Your task to perform on an android device: toggle location history Image 0: 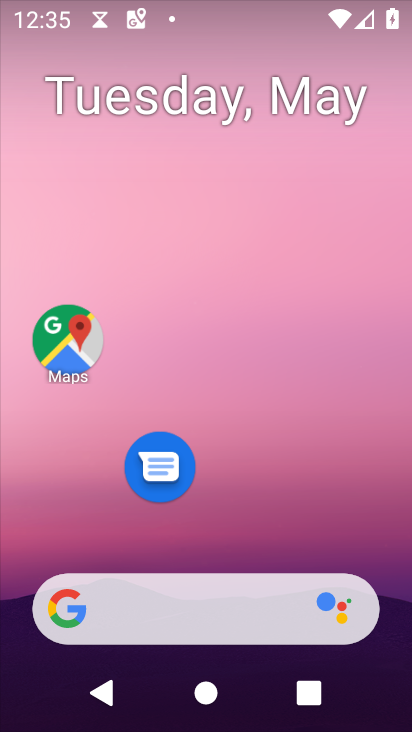
Step 0: drag from (261, 532) to (249, 72)
Your task to perform on an android device: toggle location history Image 1: 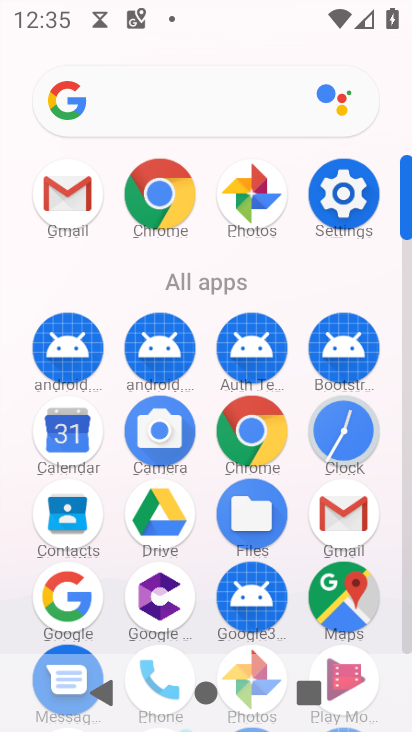
Step 1: click (363, 202)
Your task to perform on an android device: toggle location history Image 2: 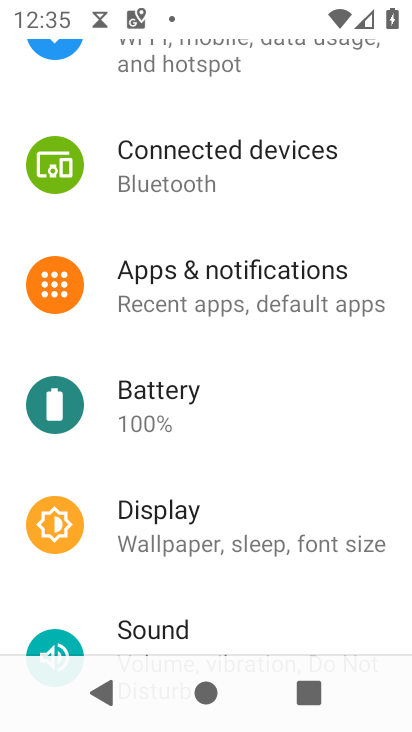
Step 2: drag from (303, 451) to (298, 120)
Your task to perform on an android device: toggle location history Image 3: 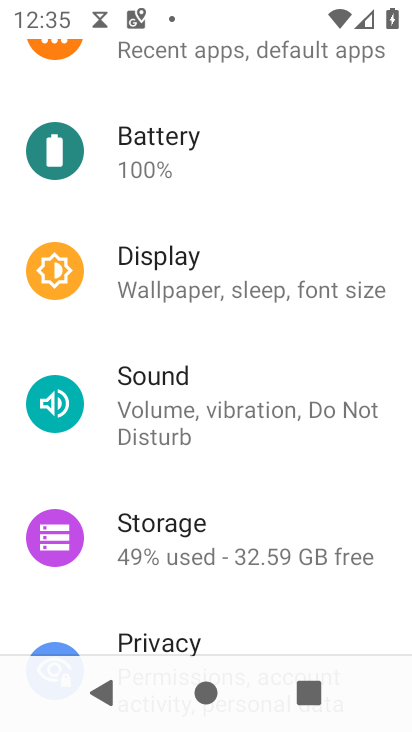
Step 3: drag from (275, 541) to (283, 334)
Your task to perform on an android device: toggle location history Image 4: 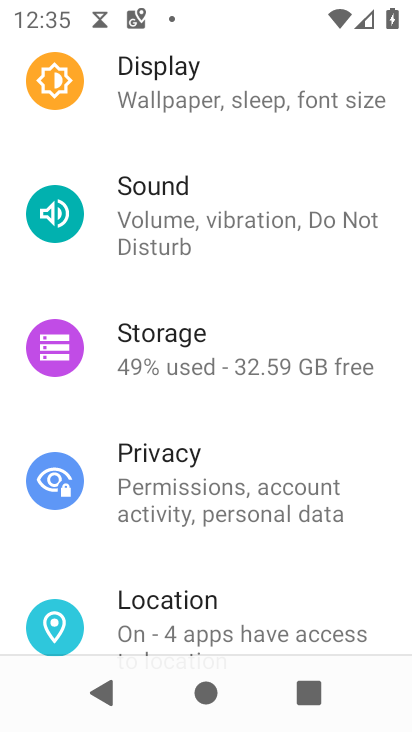
Step 4: click (235, 624)
Your task to perform on an android device: toggle location history Image 5: 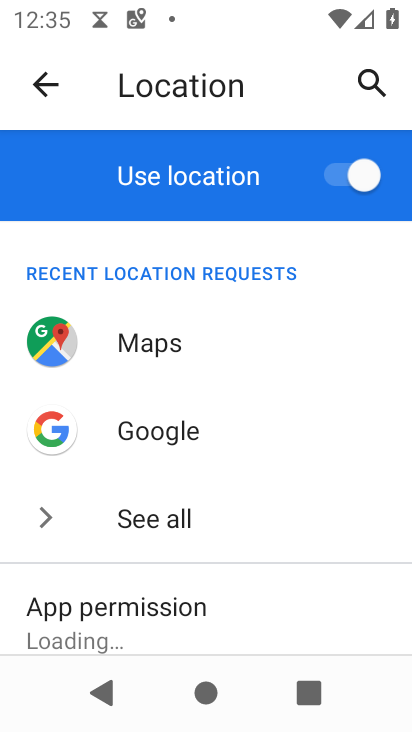
Step 5: drag from (283, 613) to (288, 238)
Your task to perform on an android device: toggle location history Image 6: 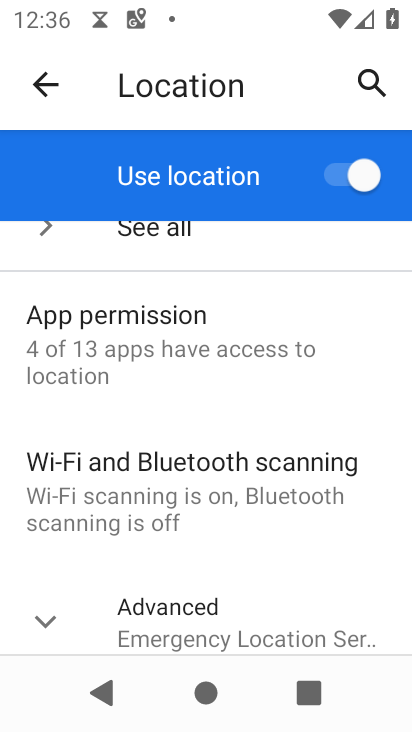
Step 6: drag from (262, 597) to (276, 265)
Your task to perform on an android device: toggle location history Image 7: 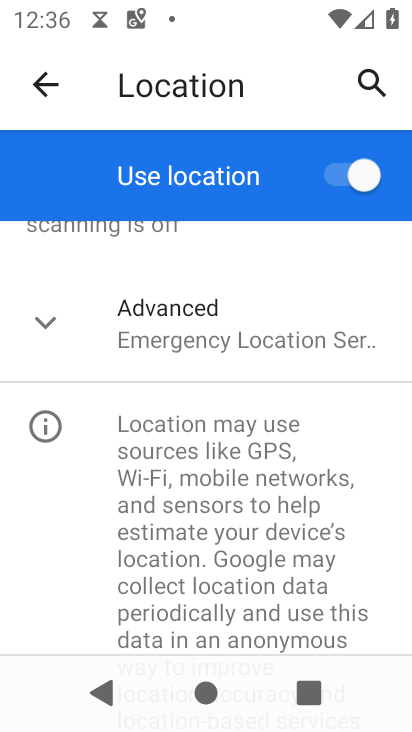
Step 7: click (274, 333)
Your task to perform on an android device: toggle location history Image 8: 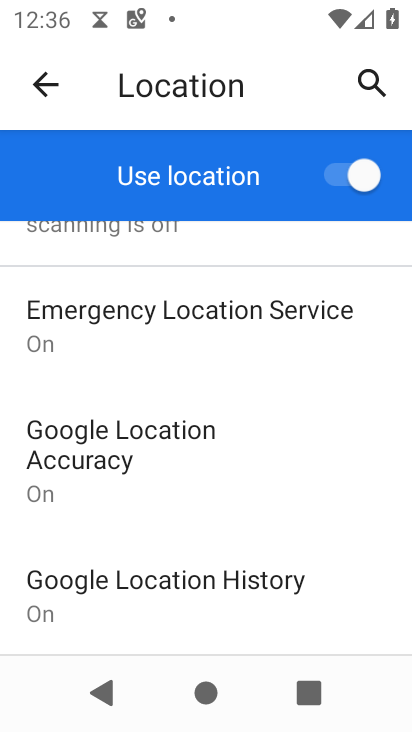
Step 8: click (188, 581)
Your task to perform on an android device: toggle location history Image 9: 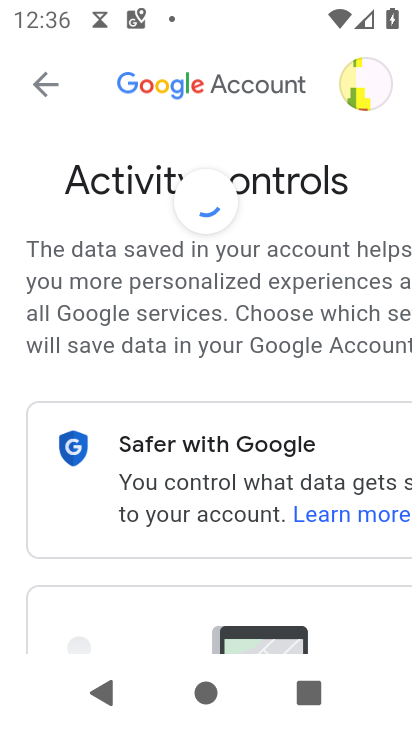
Step 9: drag from (309, 559) to (273, 181)
Your task to perform on an android device: toggle location history Image 10: 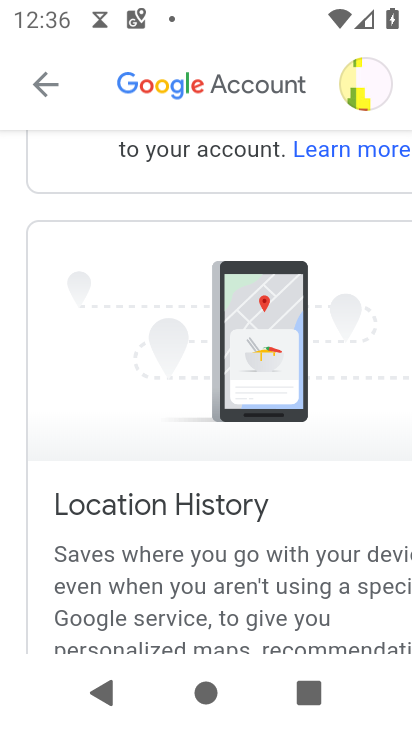
Step 10: drag from (279, 580) to (261, 163)
Your task to perform on an android device: toggle location history Image 11: 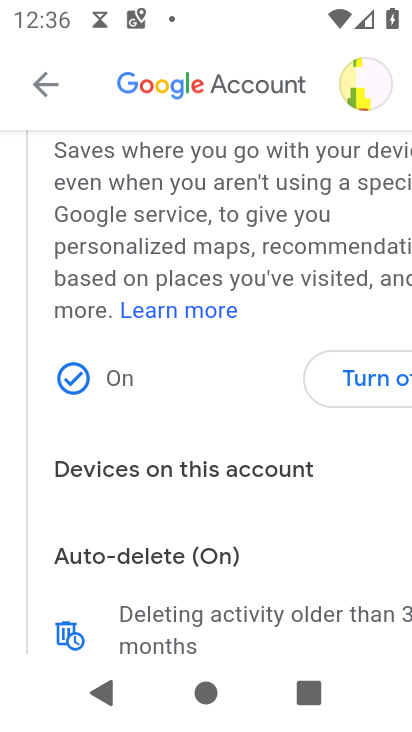
Step 11: click (365, 392)
Your task to perform on an android device: toggle location history Image 12: 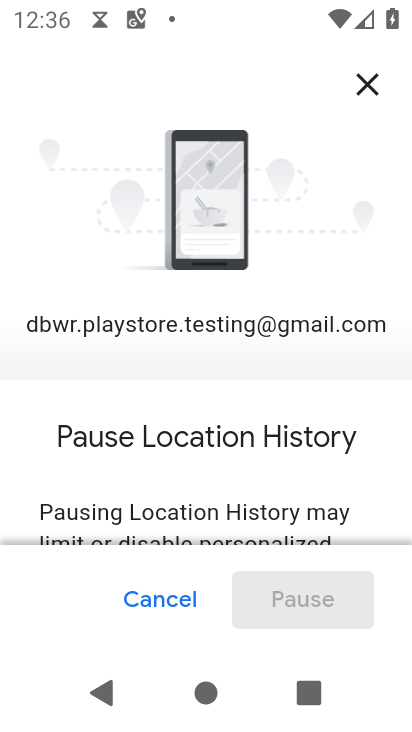
Step 12: drag from (305, 505) to (296, 56)
Your task to perform on an android device: toggle location history Image 13: 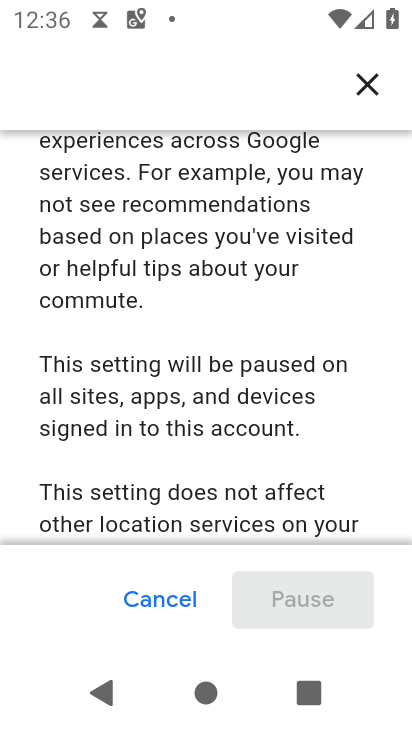
Step 13: drag from (300, 455) to (238, 37)
Your task to perform on an android device: toggle location history Image 14: 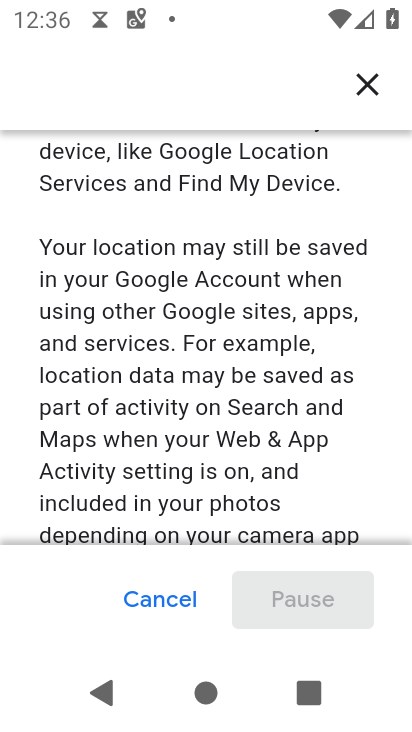
Step 14: drag from (266, 498) to (223, 84)
Your task to perform on an android device: toggle location history Image 15: 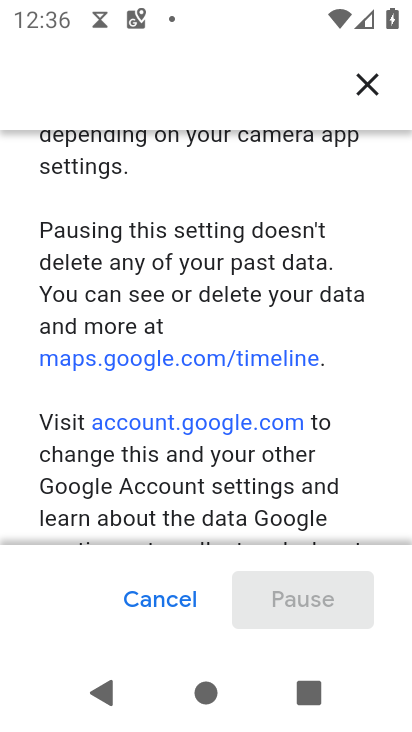
Step 15: drag from (283, 512) to (268, 157)
Your task to perform on an android device: toggle location history Image 16: 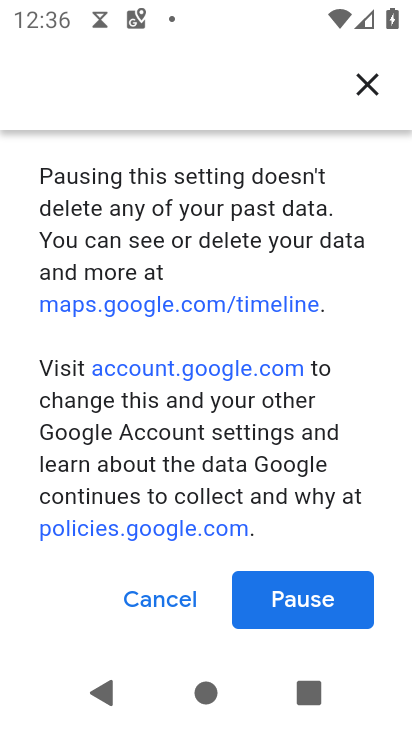
Step 16: click (320, 606)
Your task to perform on an android device: toggle location history Image 17: 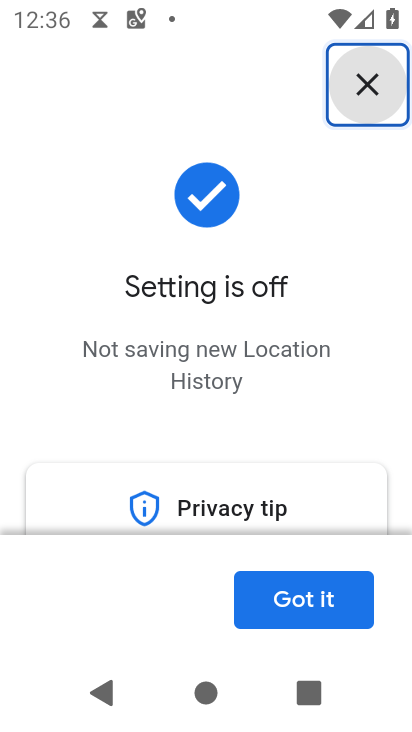
Step 17: click (320, 606)
Your task to perform on an android device: toggle location history Image 18: 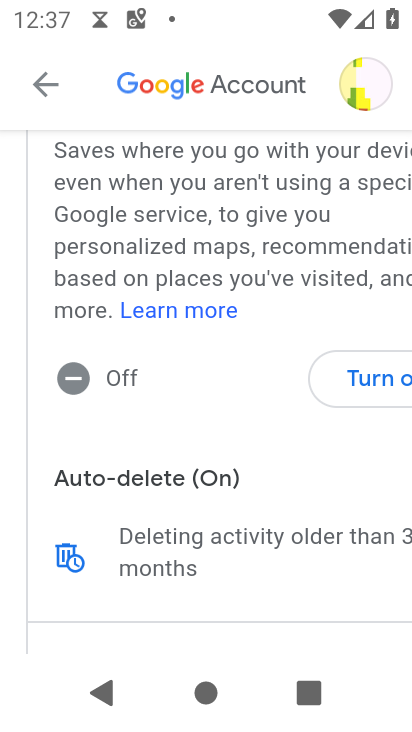
Step 18: task complete